Your task to perform on an android device: Open calendar and show me the fourth week of next month Image 0: 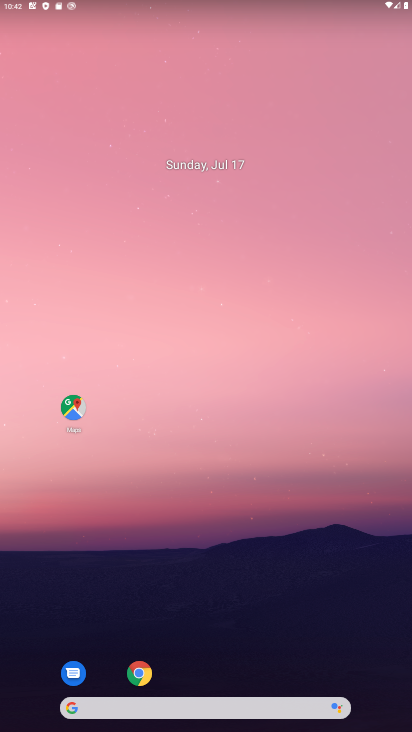
Step 0: drag from (200, 668) to (202, 61)
Your task to perform on an android device: Open calendar and show me the fourth week of next month Image 1: 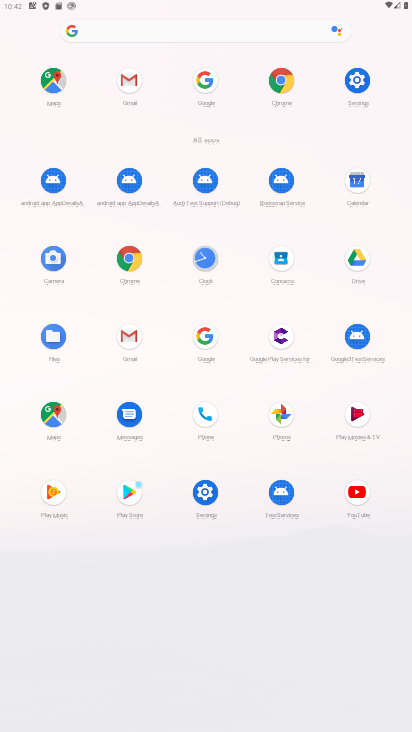
Step 1: click (357, 180)
Your task to perform on an android device: Open calendar and show me the fourth week of next month Image 2: 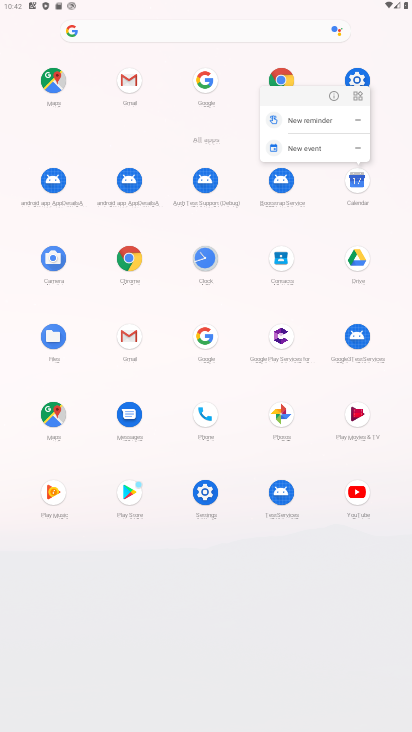
Step 2: click (357, 180)
Your task to perform on an android device: Open calendar and show me the fourth week of next month Image 3: 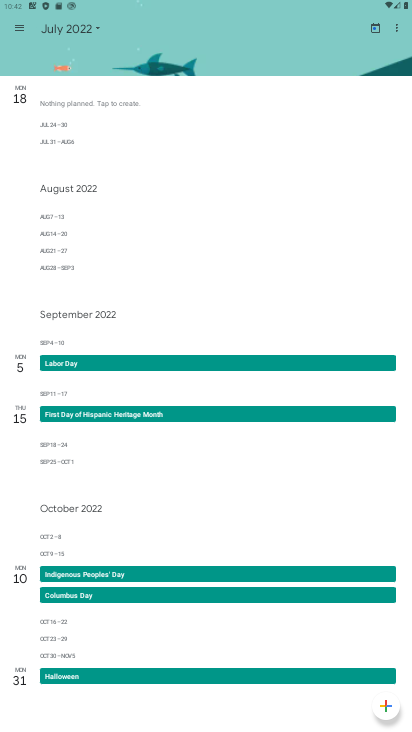
Step 3: click (93, 27)
Your task to perform on an android device: Open calendar and show me the fourth week of next month Image 4: 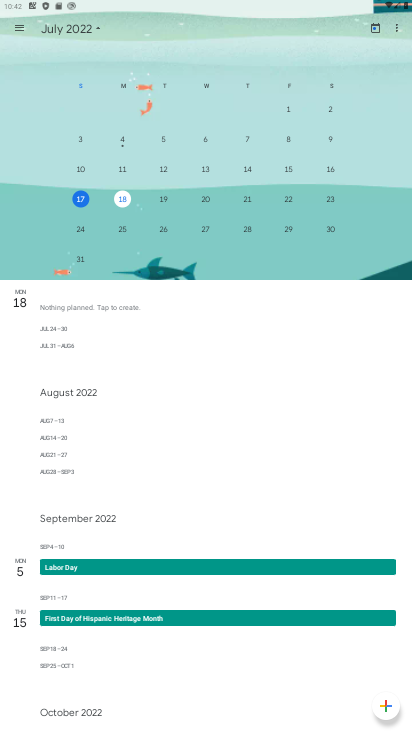
Step 4: drag from (385, 239) to (23, 222)
Your task to perform on an android device: Open calendar and show me the fourth week of next month Image 5: 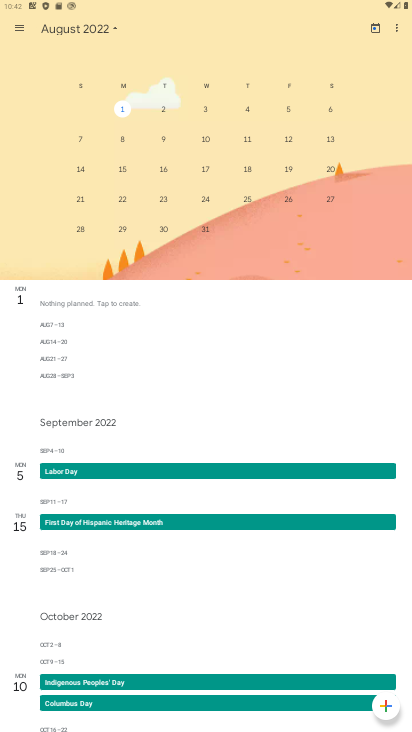
Step 5: click (163, 197)
Your task to perform on an android device: Open calendar and show me the fourth week of next month Image 6: 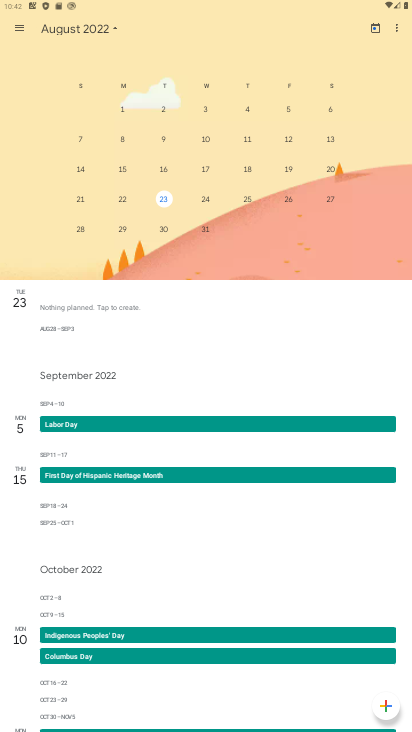
Step 6: task complete